Your task to perform on an android device: empty trash in google photos Image 0: 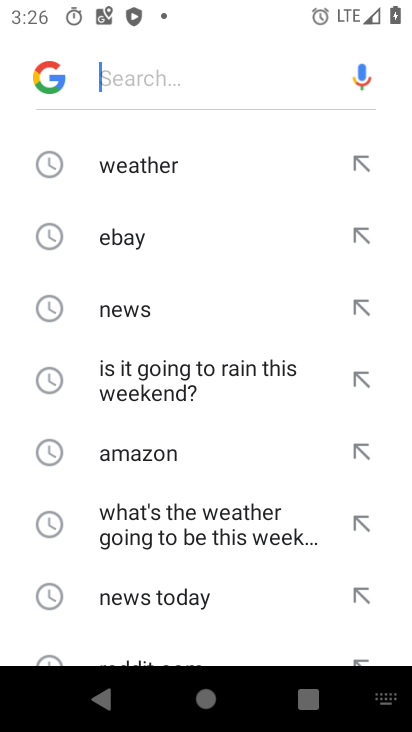
Step 0: press home button
Your task to perform on an android device: empty trash in google photos Image 1: 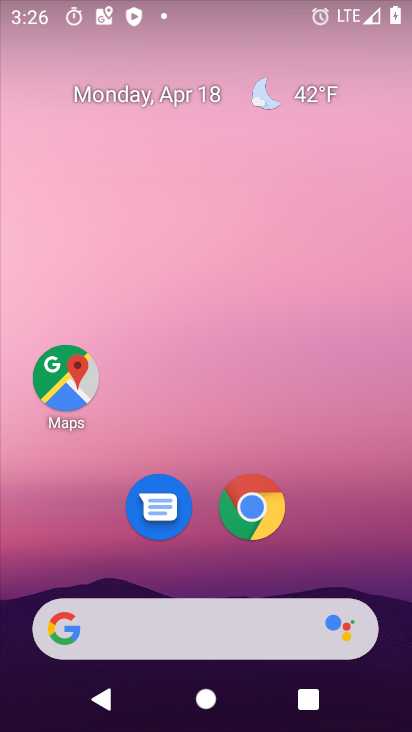
Step 1: drag from (356, 518) to (350, 120)
Your task to perform on an android device: empty trash in google photos Image 2: 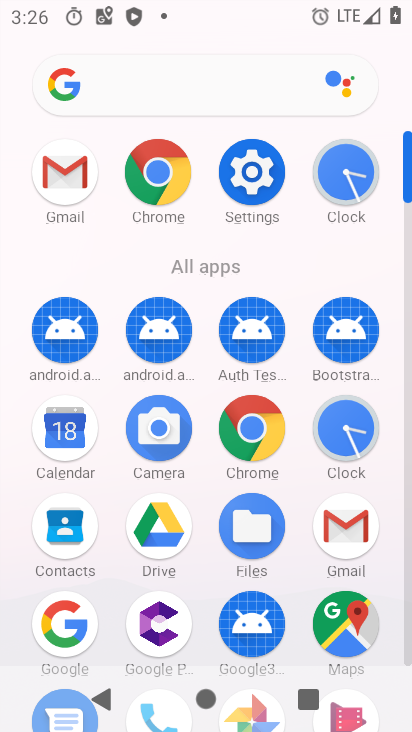
Step 2: drag from (286, 590) to (286, 346)
Your task to perform on an android device: empty trash in google photos Image 3: 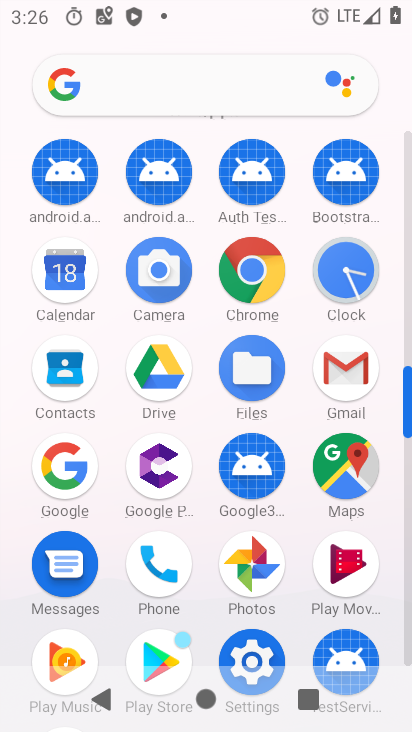
Step 3: click (248, 566)
Your task to perform on an android device: empty trash in google photos Image 4: 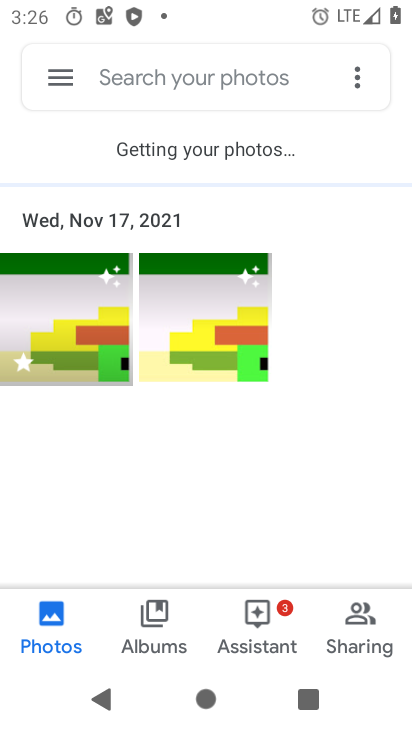
Step 4: click (51, 69)
Your task to perform on an android device: empty trash in google photos Image 5: 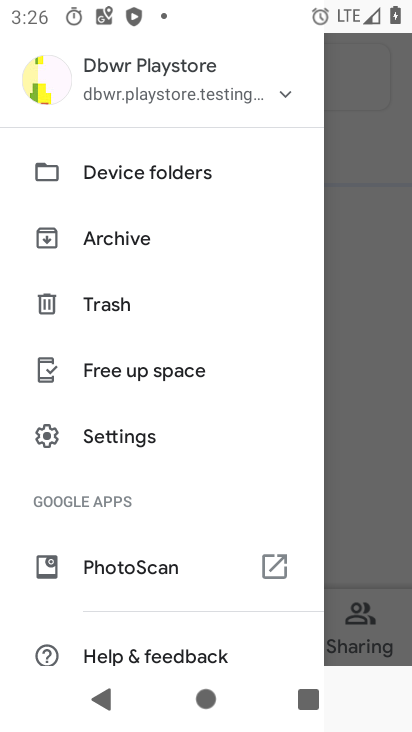
Step 5: click (97, 302)
Your task to perform on an android device: empty trash in google photos Image 6: 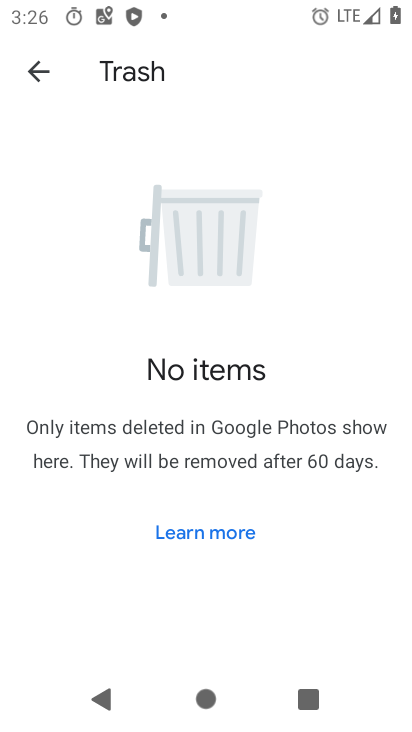
Step 6: task complete